Your task to perform on an android device: Open maps Image 0: 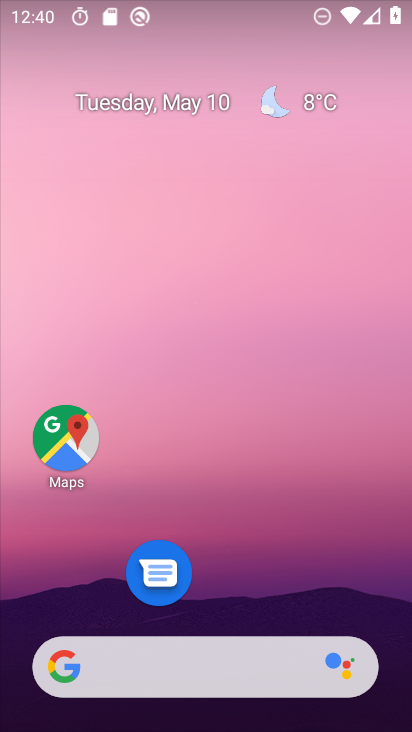
Step 0: drag from (237, 608) to (316, 99)
Your task to perform on an android device: Open maps Image 1: 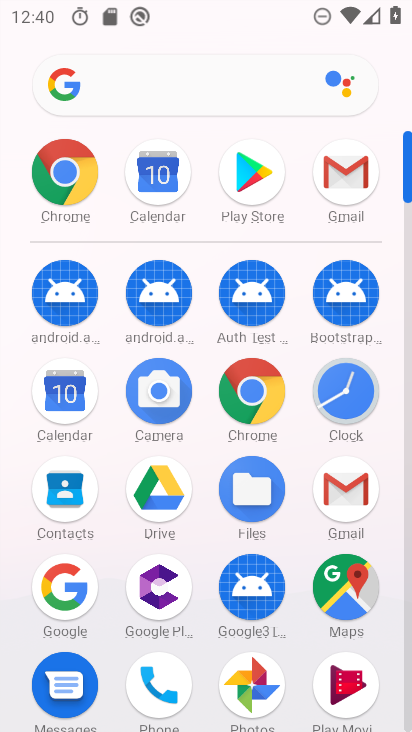
Step 1: click (330, 599)
Your task to perform on an android device: Open maps Image 2: 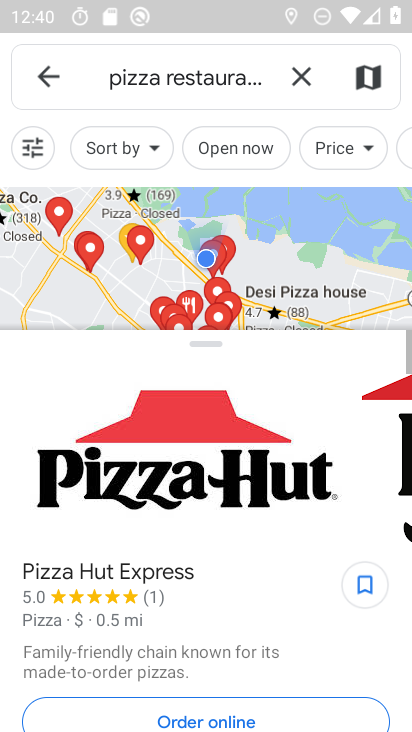
Step 2: click (52, 83)
Your task to perform on an android device: Open maps Image 3: 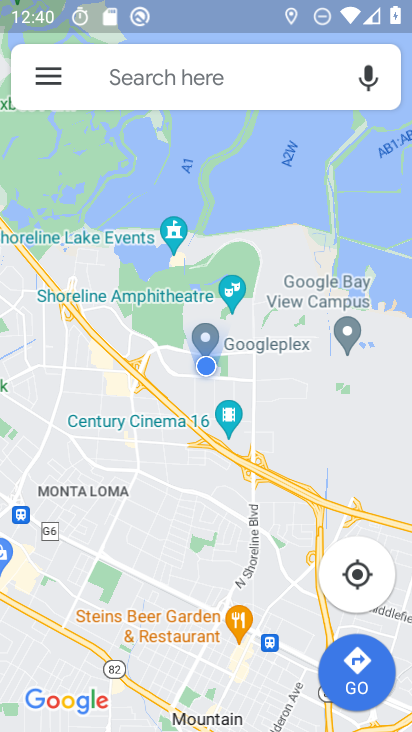
Step 3: task complete